Your task to perform on an android device: turn on notifications settings in the gmail app Image 0: 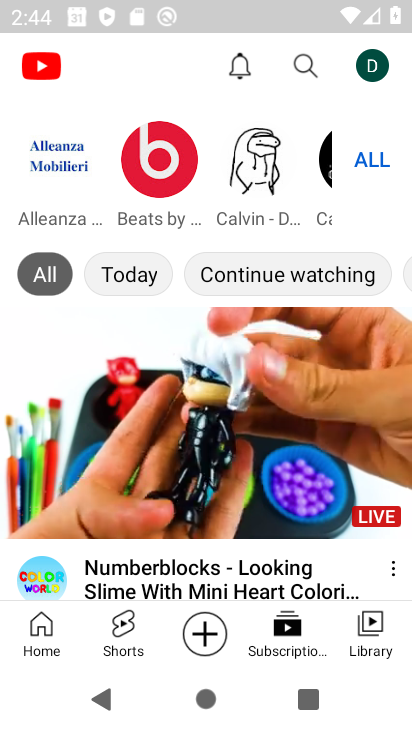
Step 0: press home button
Your task to perform on an android device: turn on notifications settings in the gmail app Image 1: 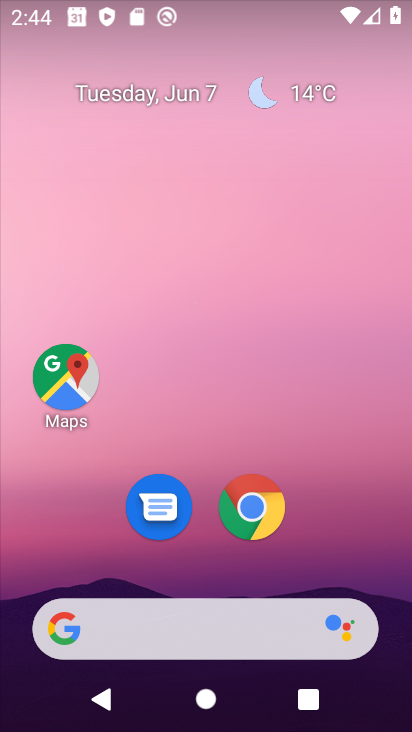
Step 1: drag from (365, 520) to (308, 114)
Your task to perform on an android device: turn on notifications settings in the gmail app Image 2: 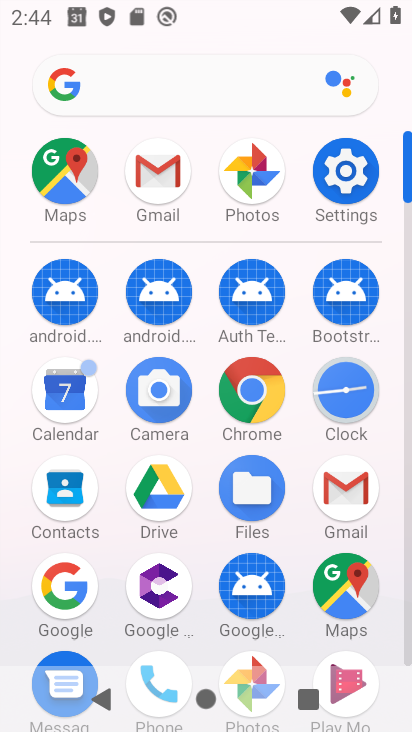
Step 2: click (167, 193)
Your task to perform on an android device: turn on notifications settings in the gmail app Image 3: 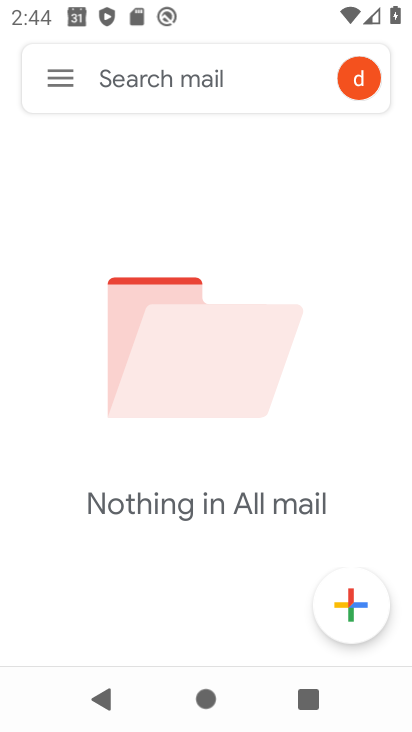
Step 3: click (54, 64)
Your task to perform on an android device: turn on notifications settings in the gmail app Image 4: 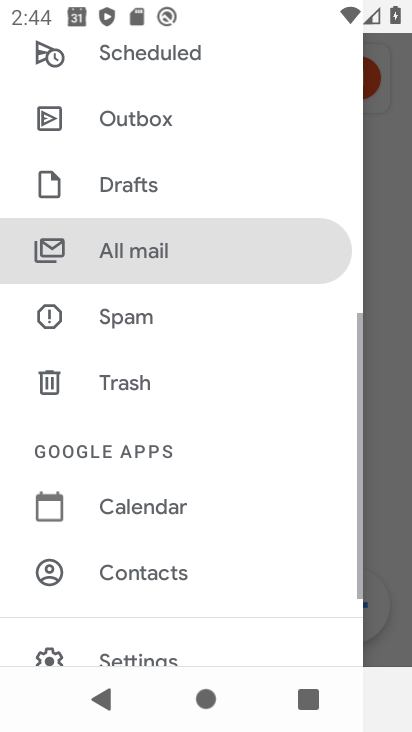
Step 4: drag from (159, 563) to (199, 88)
Your task to perform on an android device: turn on notifications settings in the gmail app Image 5: 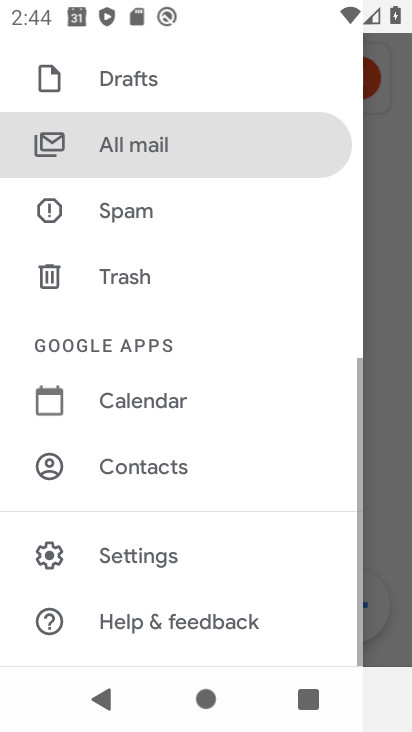
Step 5: click (135, 551)
Your task to perform on an android device: turn on notifications settings in the gmail app Image 6: 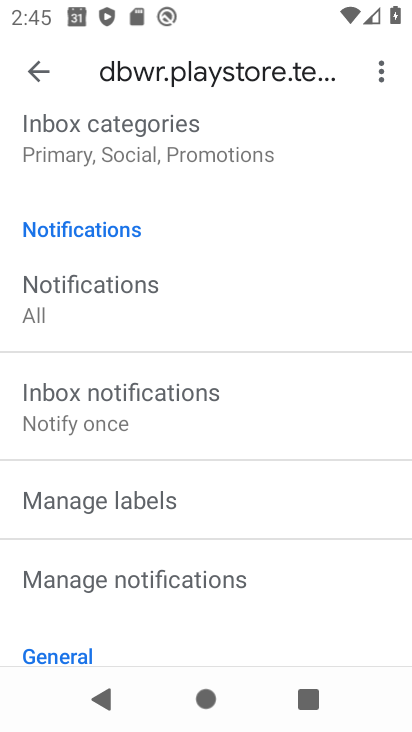
Step 6: drag from (189, 250) to (270, 159)
Your task to perform on an android device: turn on notifications settings in the gmail app Image 7: 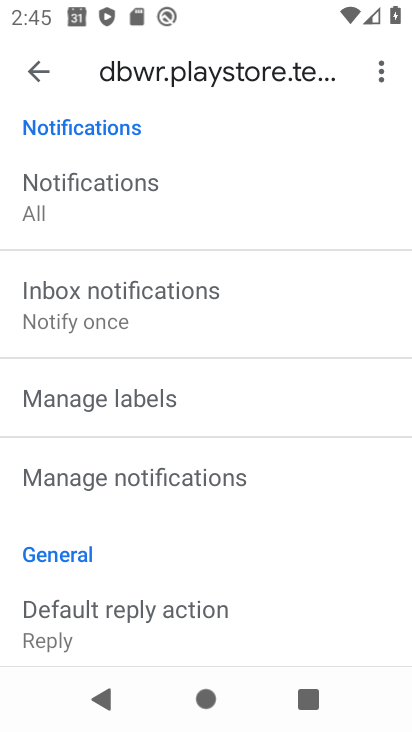
Step 7: click (163, 465)
Your task to perform on an android device: turn on notifications settings in the gmail app Image 8: 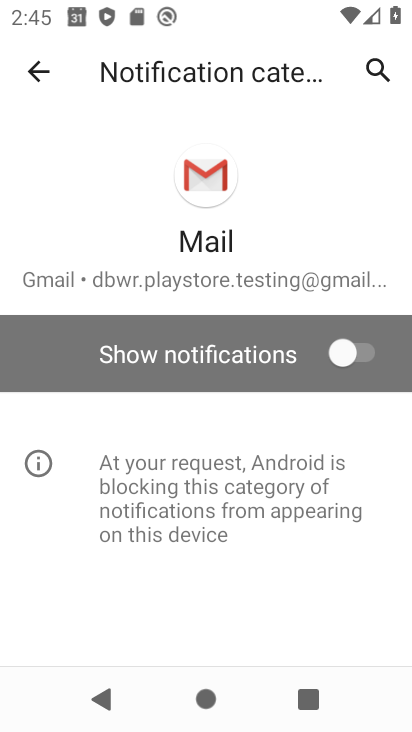
Step 8: click (356, 343)
Your task to perform on an android device: turn on notifications settings in the gmail app Image 9: 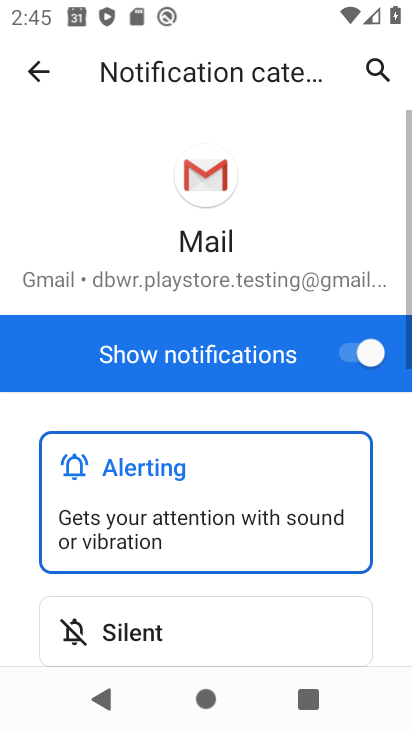
Step 9: task complete